Your task to perform on an android device: Turn on the flashlight Image 0: 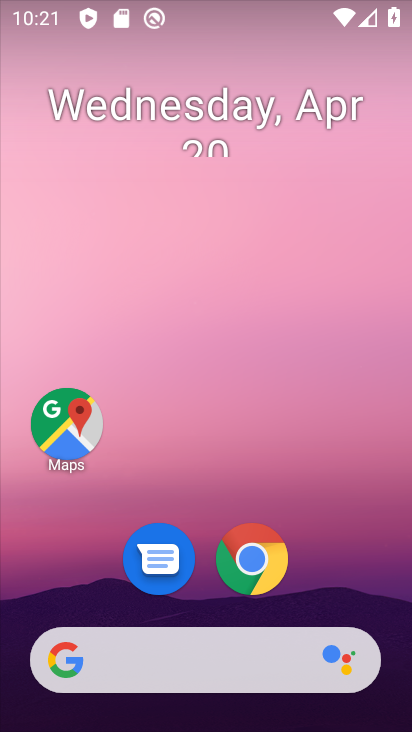
Step 0: drag from (203, 717) to (197, 124)
Your task to perform on an android device: Turn on the flashlight Image 1: 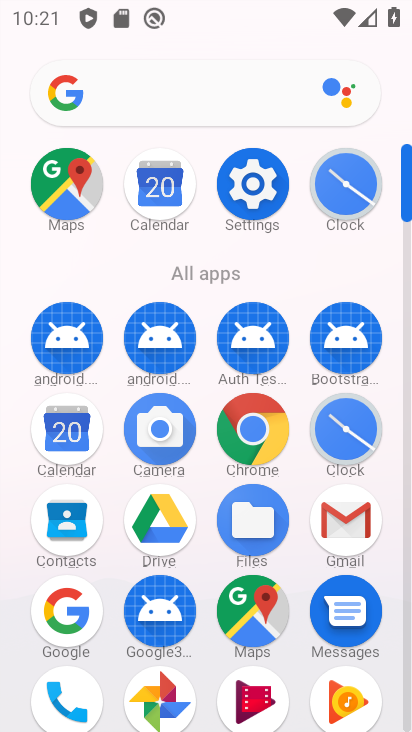
Step 1: click (251, 182)
Your task to perform on an android device: Turn on the flashlight Image 2: 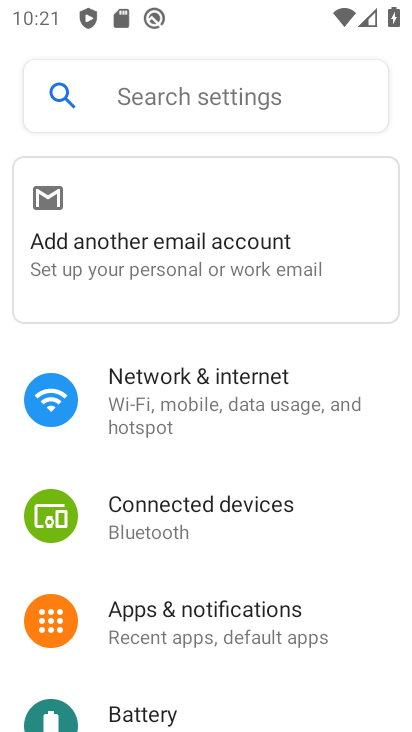
Step 2: task complete